Your task to perform on an android device: Open Chrome and go to the settings page Image 0: 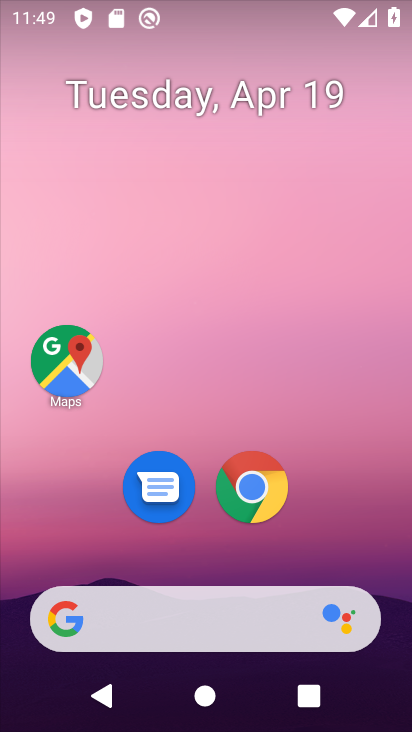
Step 0: drag from (324, 483) to (254, 55)
Your task to perform on an android device: Open Chrome and go to the settings page Image 1: 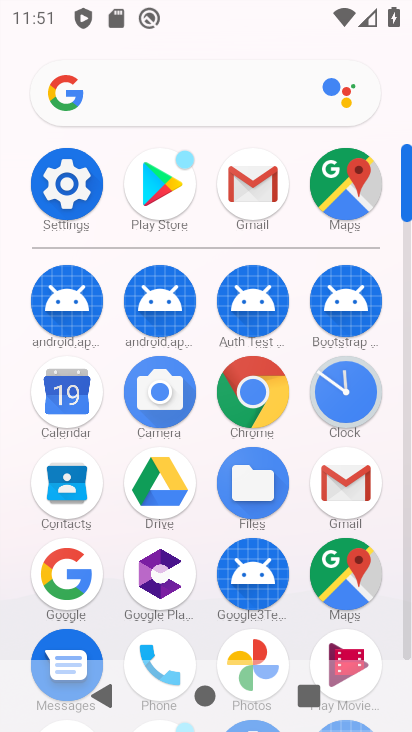
Step 1: click (229, 386)
Your task to perform on an android device: Open Chrome and go to the settings page Image 2: 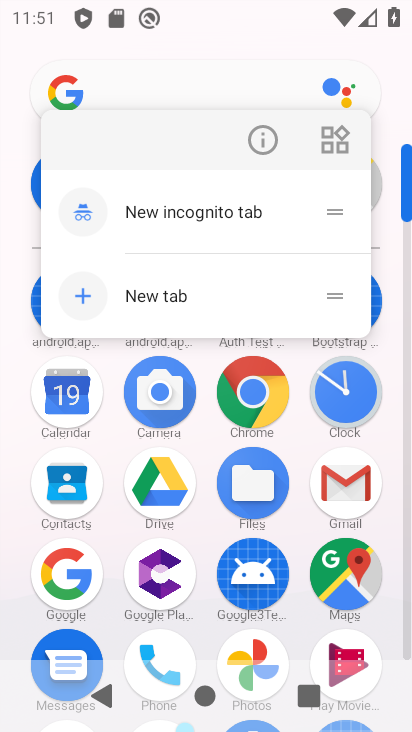
Step 2: click (261, 390)
Your task to perform on an android device: Open Chrome and go to the settings page Image 3: 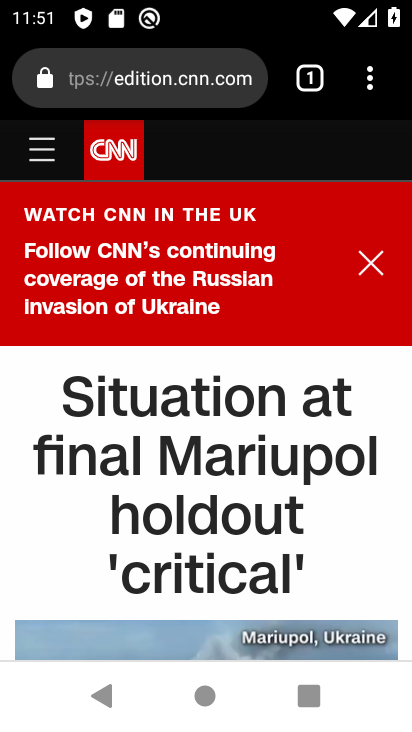
Step 3: click (367, 78)
Your task to perform on an android device: Open Chrome and go to the settings page Image 4: 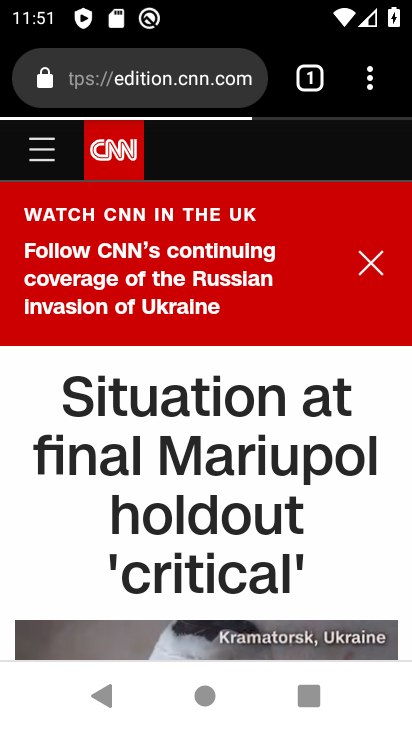
Step 4: click (367, 78)
Your task to perform on an android device: Open Chrome and go to the settings page Image 5: 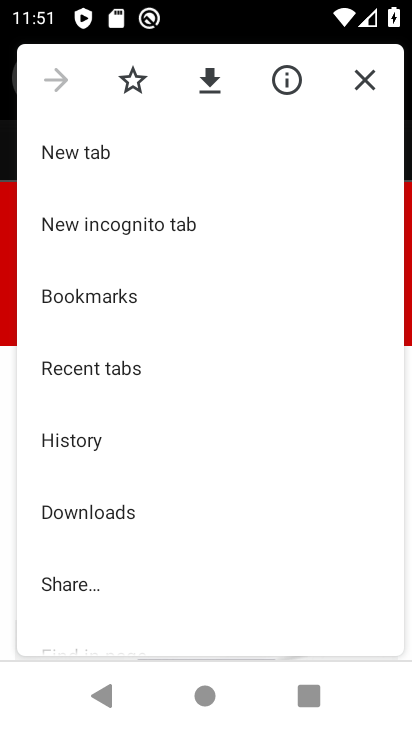
Step 5: drag from (160, 546) to (178, 235)
Your task to perform on an android device: Open Chrome and go to the settings page Image 6: 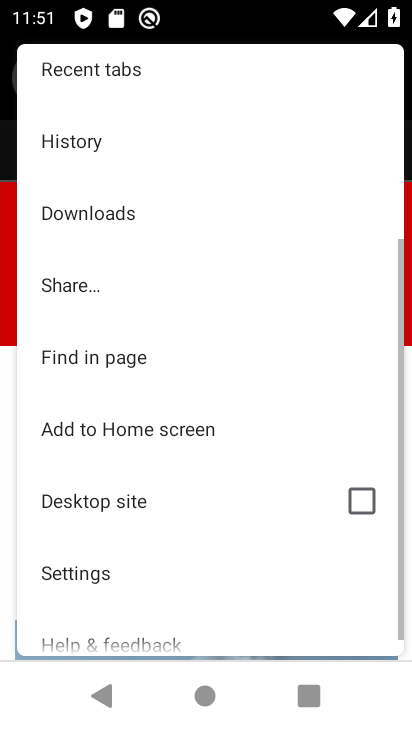
Step 6: click (116, 570)
Your task to perform on an android device: Open Chrome and go to the settings page Image 7: 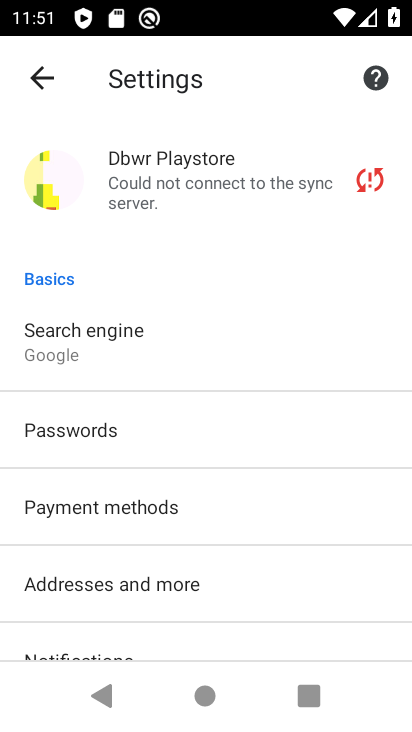
Step 7: task complete